Your task to perform on an android device: check out phone information Image 0: 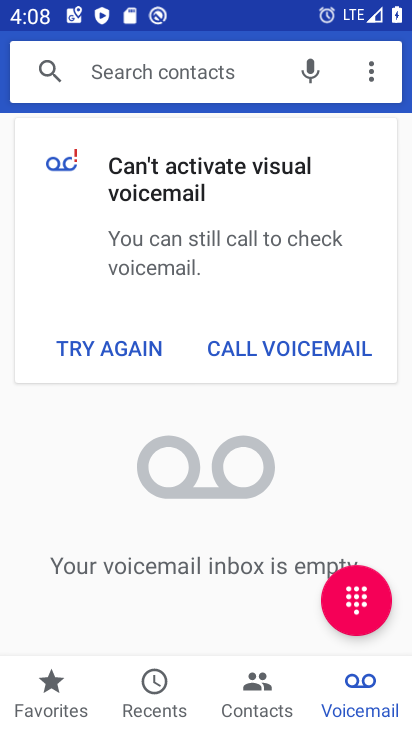
Step 0: press home button
Your task to perform on an android device: check out phone information Image 1: 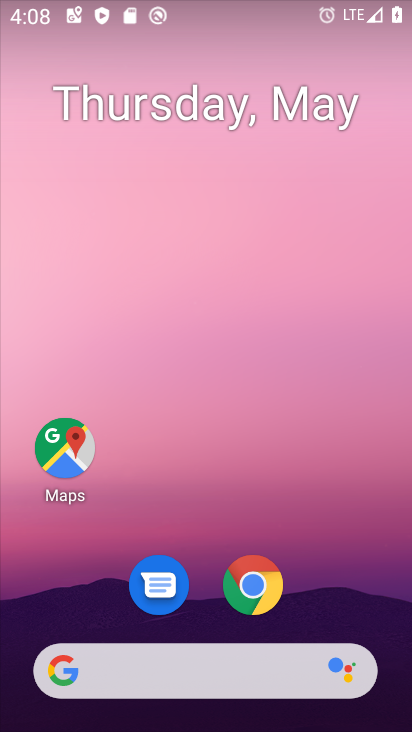
Step 1: drag from (250, 514) to (202, 48)
Your task to perform on an android device: check out phone information Image 2: 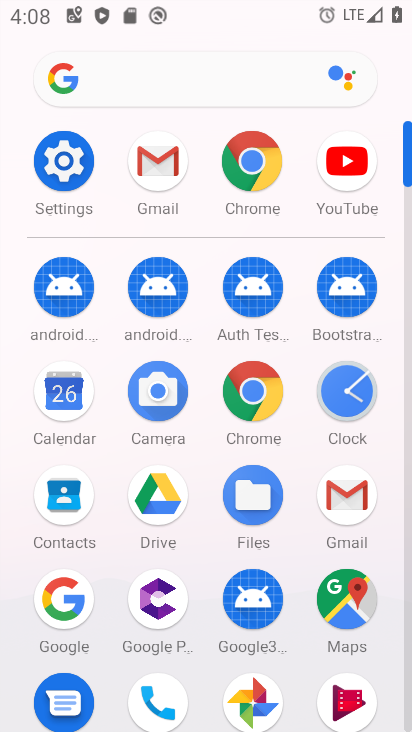
Step 2: click (161, 688)
Your task to perform on an android device: check out phone information Image 3: 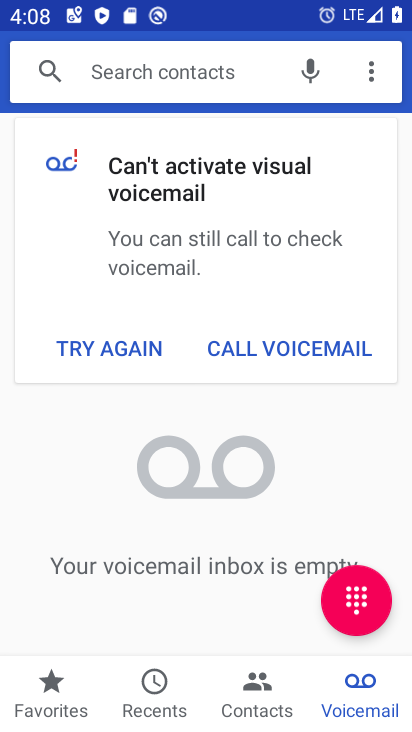
Step 3: click (364, 64)
Your task to perform on an android device: check out phone information Image 4: 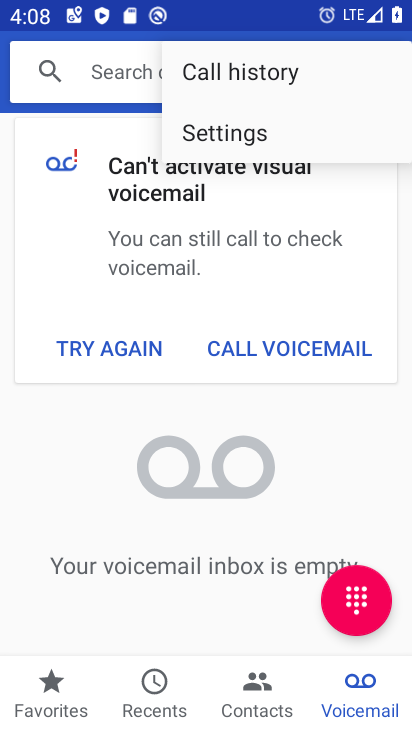
Step 4: click (313, 129)
Your task to perform on an android device: check out phone information Image 5: 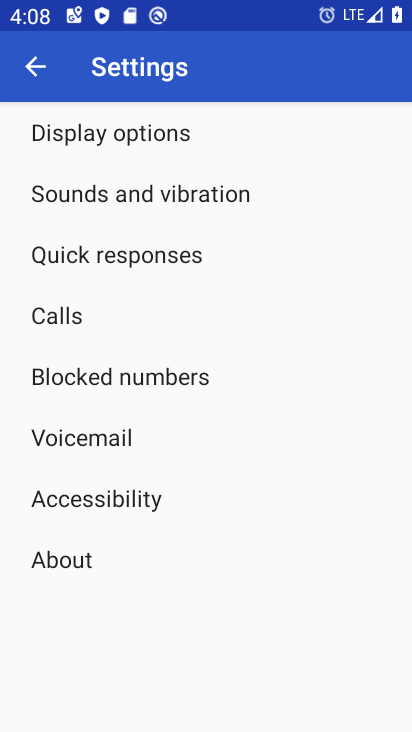
Step 5: click (83, 556)
Your task to perform on an android device: check out phone information Image 6: 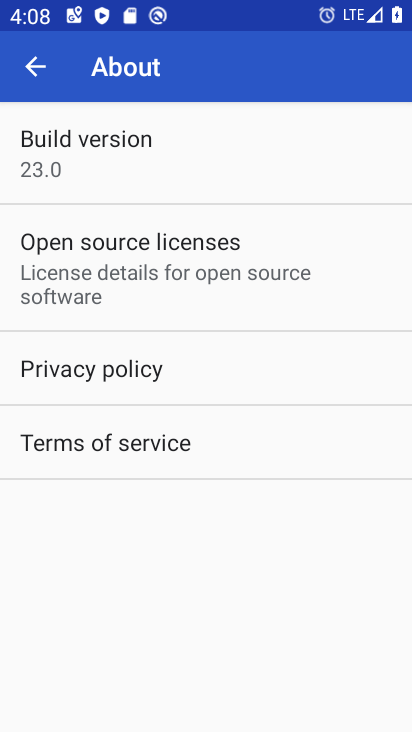
Step 6: task complete